Your task to perform on an android device: set the timer Image 0: 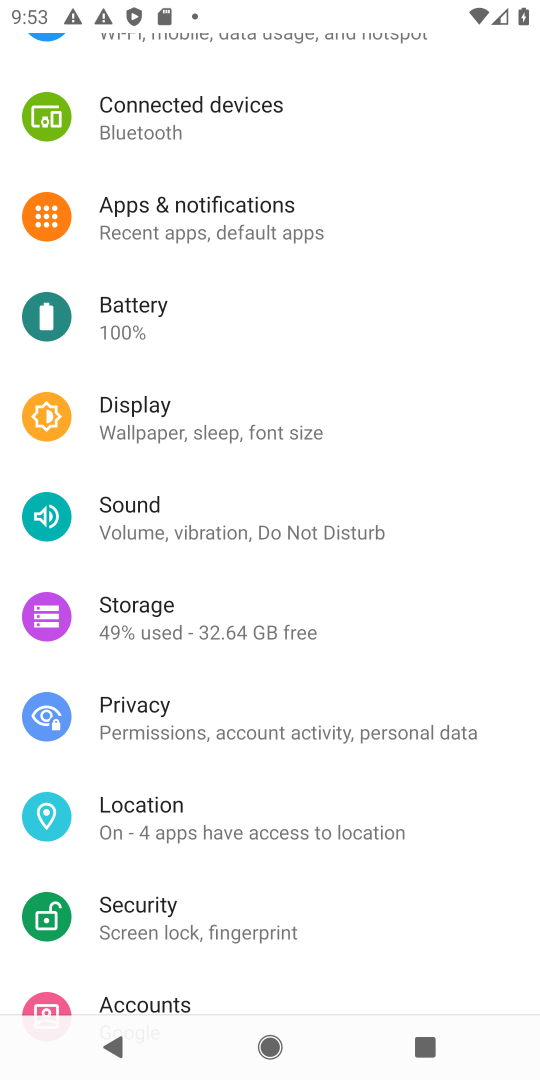
Step 0: press home button
Your task to perform on an android device: set the timer Image 1: 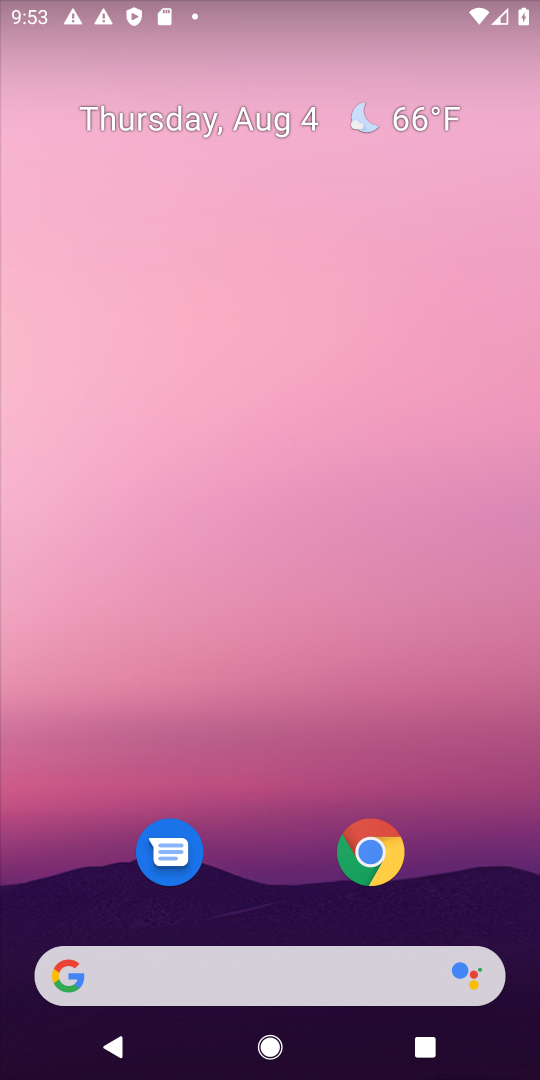
Step 1: drag from (267, 908) to (263, 156)
Your task to perform on an android device: set the timer Image 2: 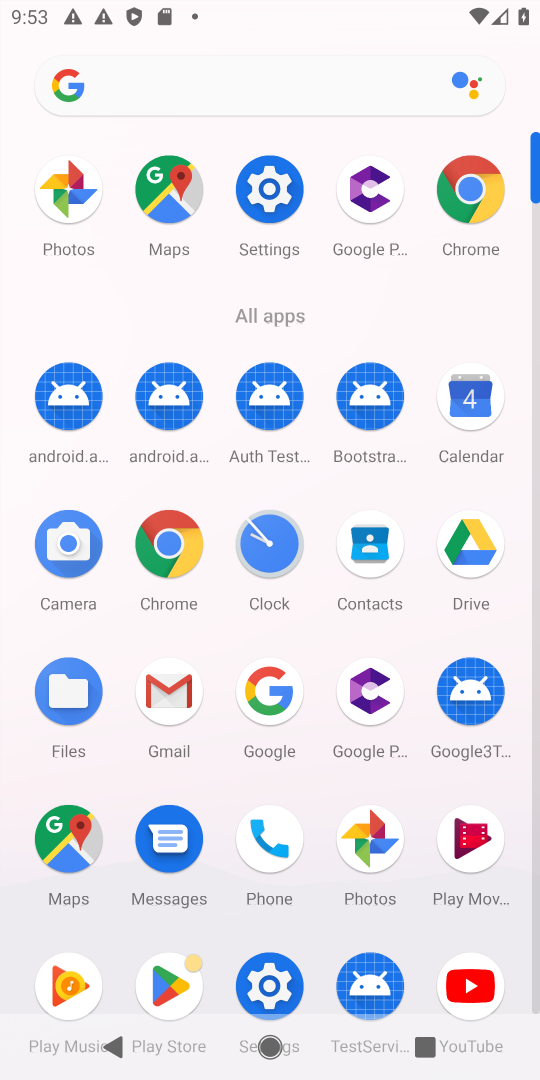
Step 2: click (260, 537)
Your task to perform on an android device: set the timer Image 3: 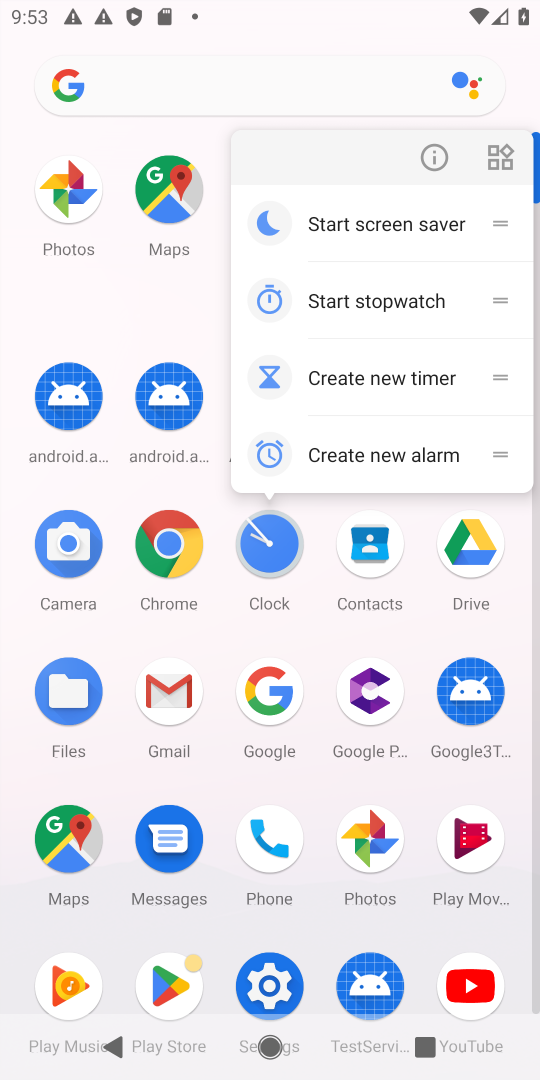
Step 3: click (268, 529)
Your task to perform on an android device: set the timer Image 4: 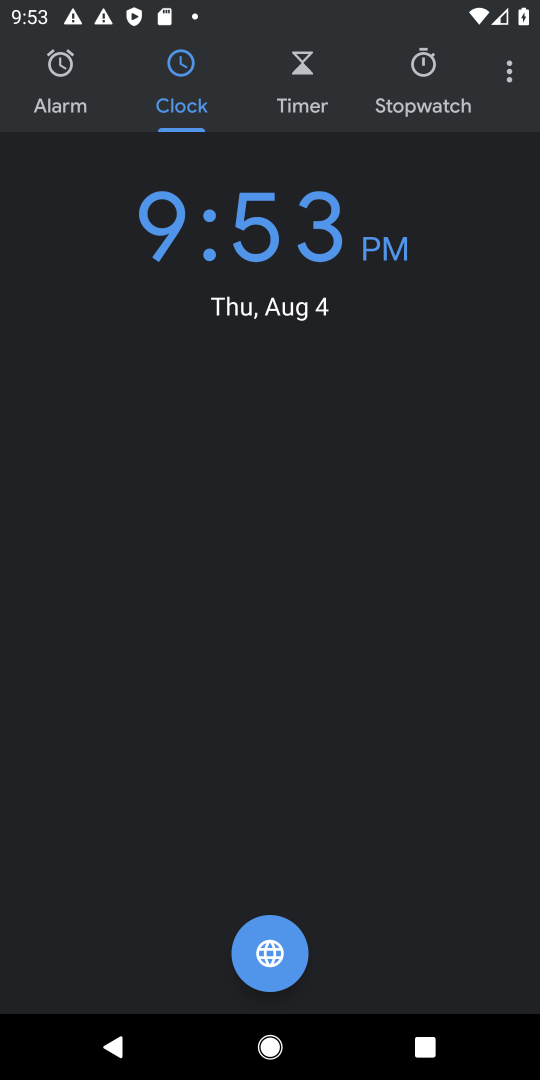
Step 4: click (320, 105)
Your task to perform on an android device: set the timer Image 5: 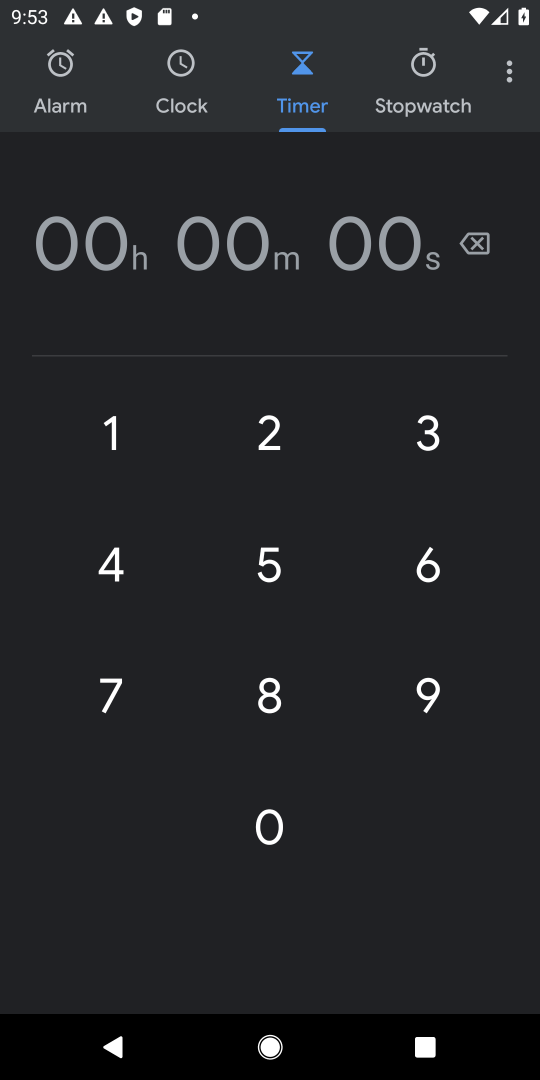
Step 5: click (262, 258)
Your task to perform on an android device: set the timer Image 6: 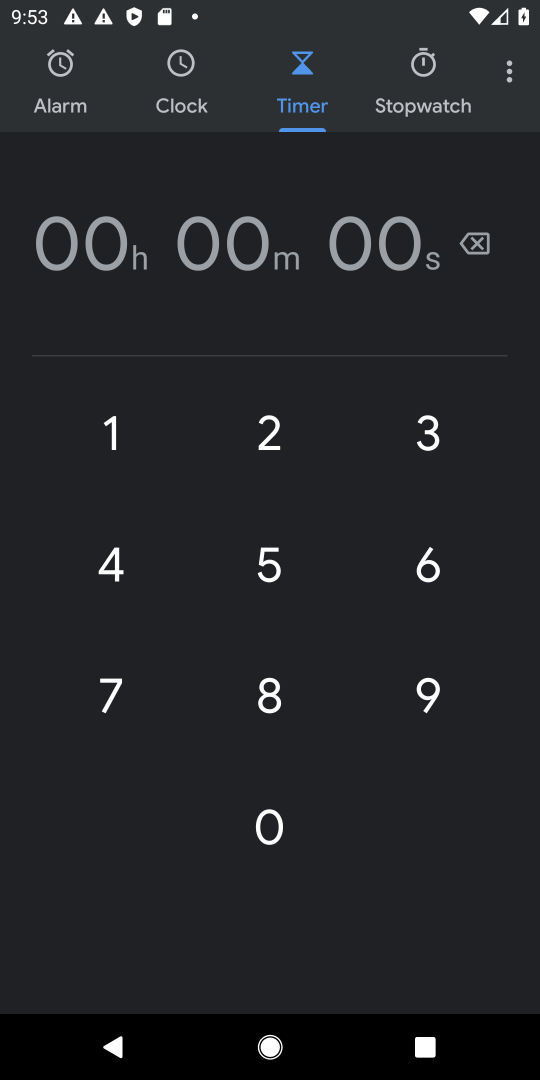
Step 6: click (119, 196)
Your task to perform on an android device: set the timer Image 7: 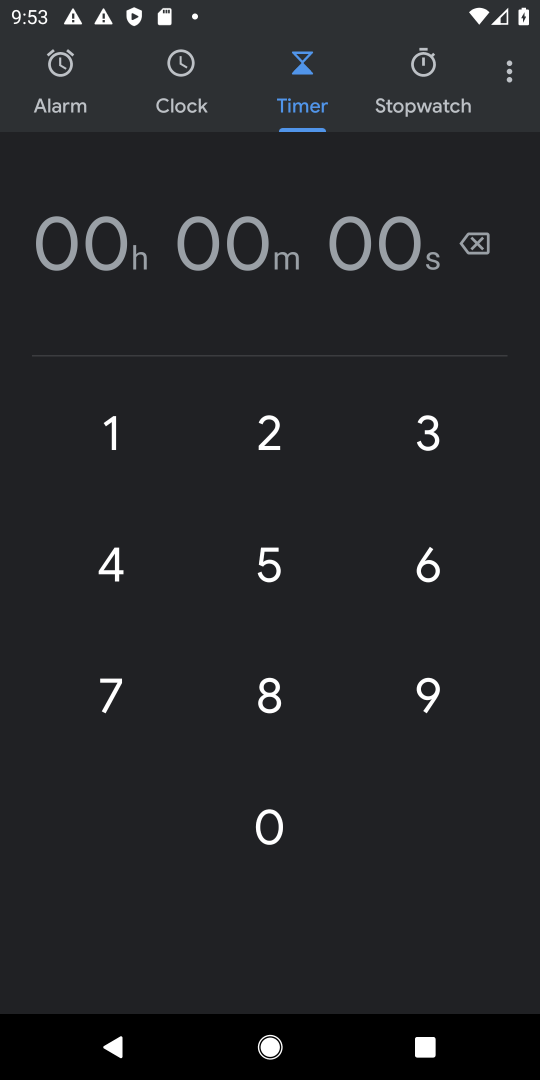
Step 7: type "878787878 "
Your task to perform on an android device: set the timer Image 8: 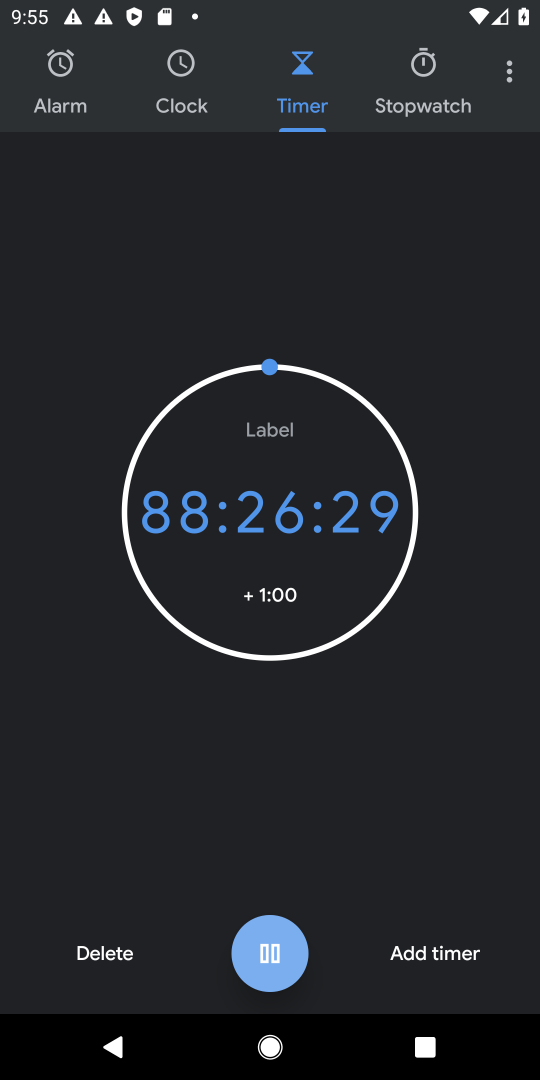
Step 8: task complete